Your task to perform on an android device: toggle notification dots Image 0: 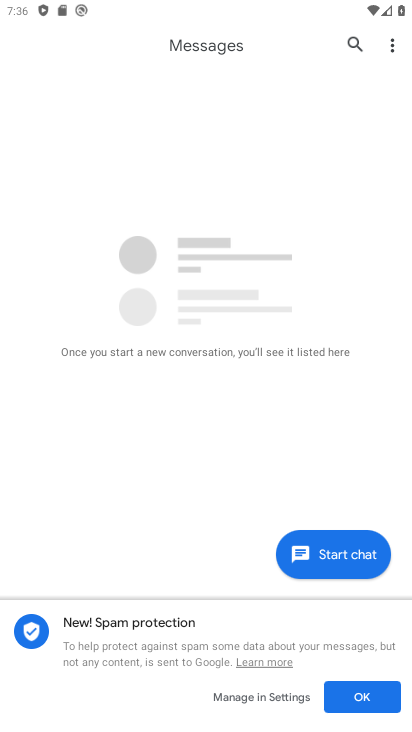
Step 0: press home button
Your task to perform on an android device: toggle notification dots Image 1: 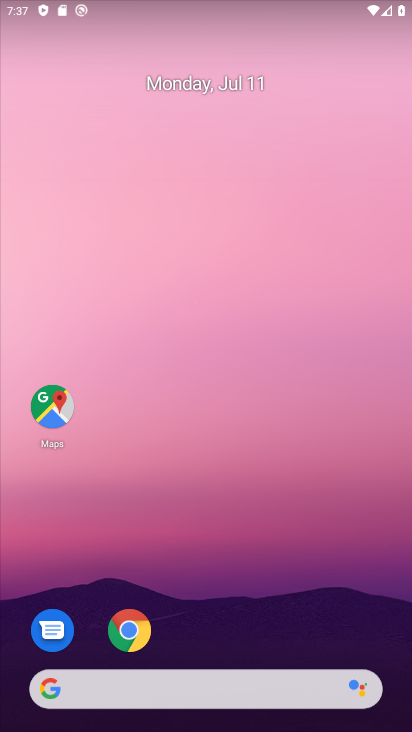
Step 1: drag from (197, 628) to (281, 219)
Your task to perform on an android device: toggle notification dots Image 2: 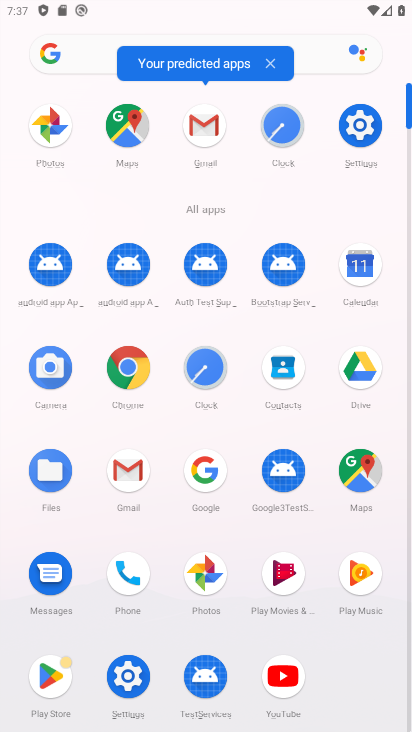
Step 2: click (363, 128)
Your task to perform on an android device: toggle notification dots Image 3: 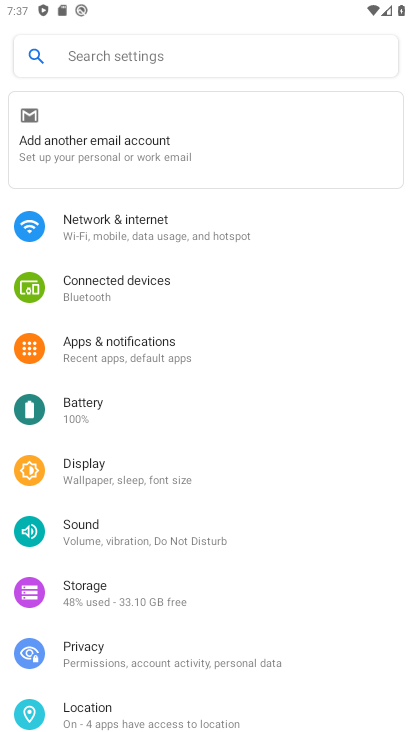
Step 3: click (151, 353)
Your task to perform on an android device: toggle notification dots Image 4: 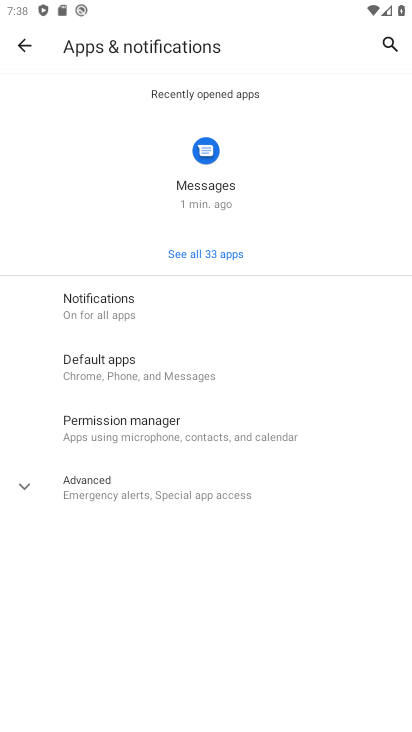
Step 4: click (159, 312)
Your task to perform on an android device: toggle notification dots Image 5: 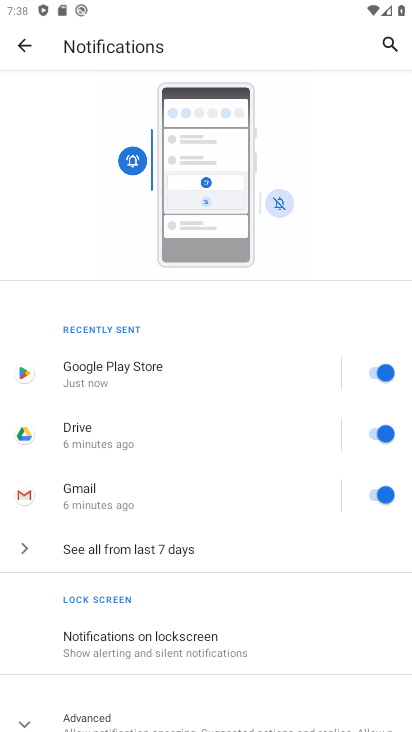
Step 5: drag from (226, 677) to (279, 342)
Your task to perform on an android device: toggle notification dots Image 6: 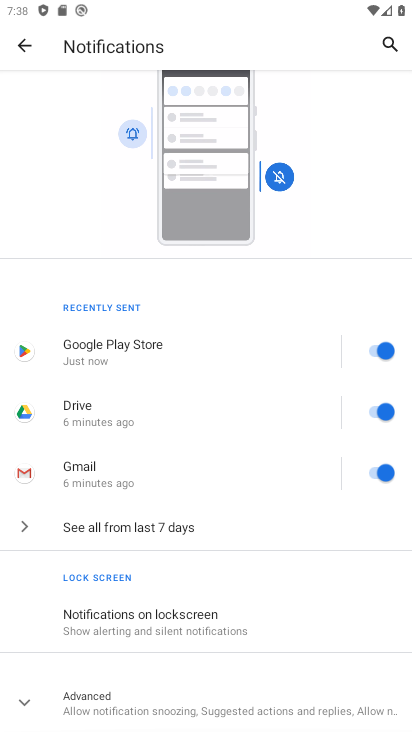
Step 6: click (115, 704)
Your task to perform on an android device: toggle notification dots Image 7: 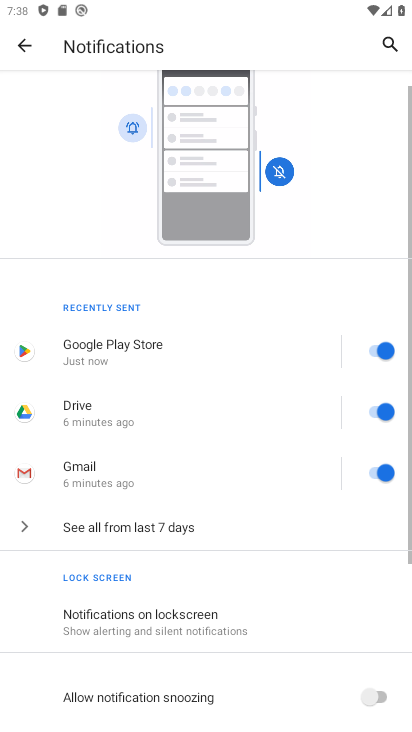
Step 7: drag from (152, 645) to (261, 312)
Your task to perform on an android device: toggle notification dots Image 8: 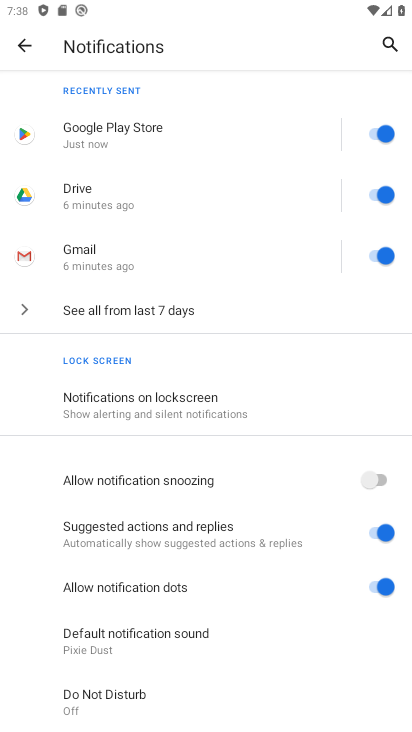
Step 8: click (382, 587)
Your task to perform on an android device: toggle notification dots Image 9: 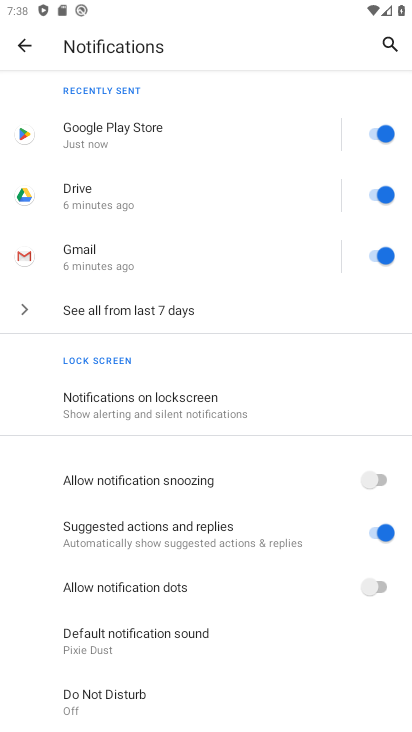
Step 9: task complete